Your task to perform on an android device: Show me recent news Image 0: 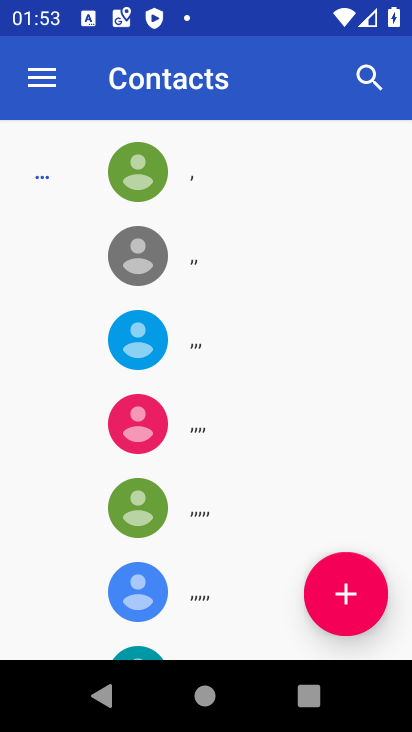
Step 0: press home button
Your task to perform on an android device: Show me recent news Image 1: 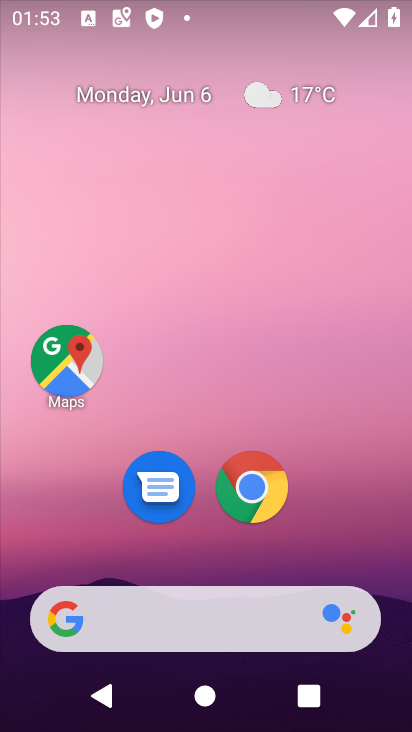
Step 1: task complete